Your task to perform on an android device: toggle priority inbox in the gmail app Image 0: 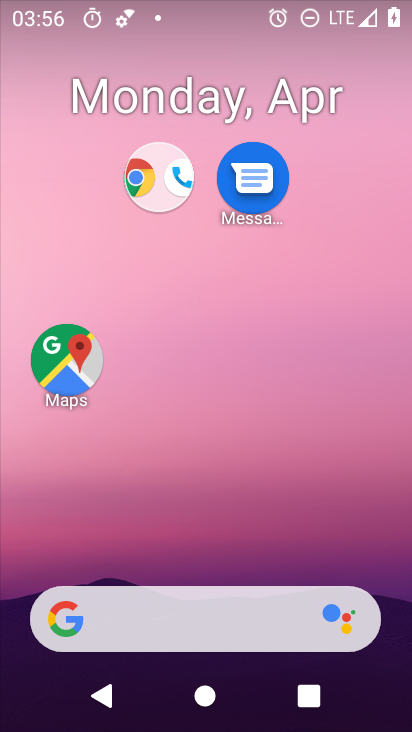
Step 0: drag from (301, 534) to (314, 3)
Your task to perform on an android device: toggle priority inbox in the gmail app Image 1: 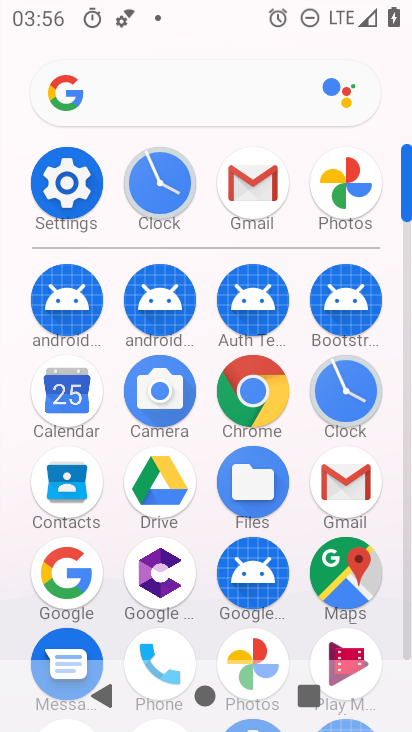
Step 1: click (354, 499)
Your task to perform on an android device: toggle priority inbox in the gmail app Image 2: 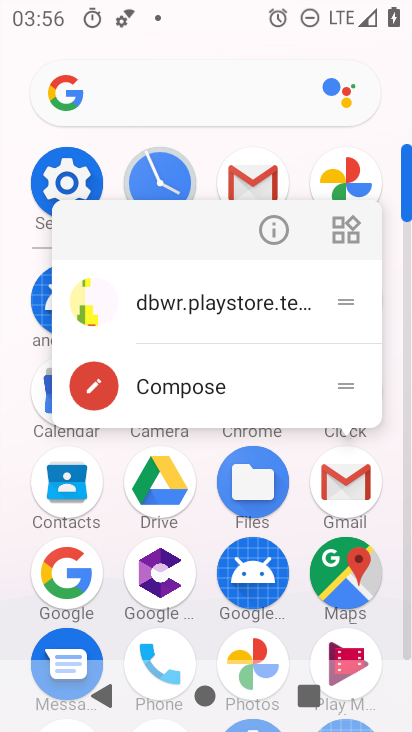
Step 2: click (333, 497)
Your task to perform on an android device: toggle priority inbox in the gmail app Image 3: 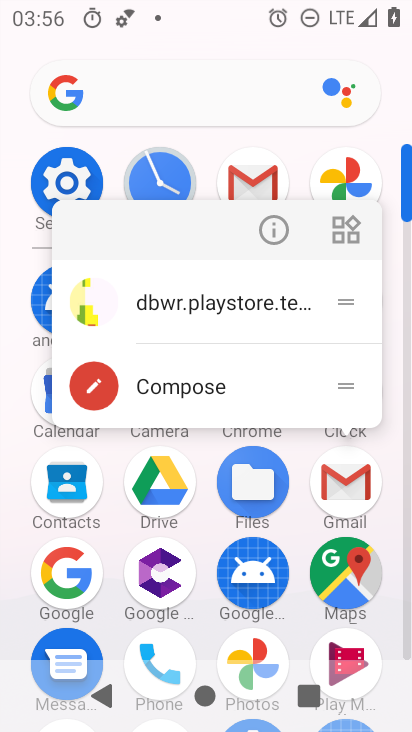
Step 3: click (349, 491)
Your task to perform on an android device: toggle priority inbox in the gmail app Image 4: 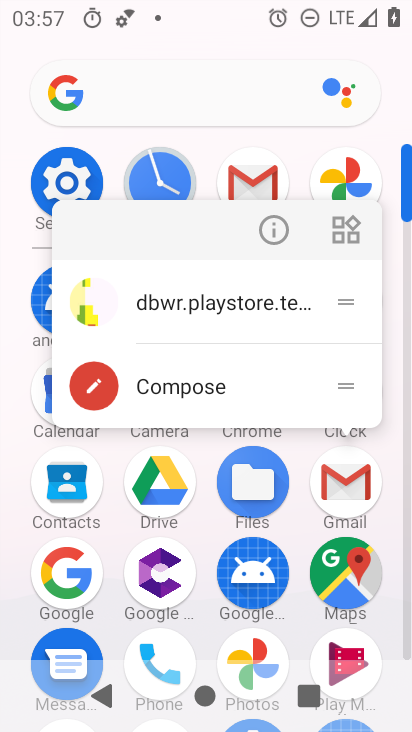
Step 4: click (349, 491)
Your task to perform on an android device: toggle priority inbox in the gmail app Image 5: 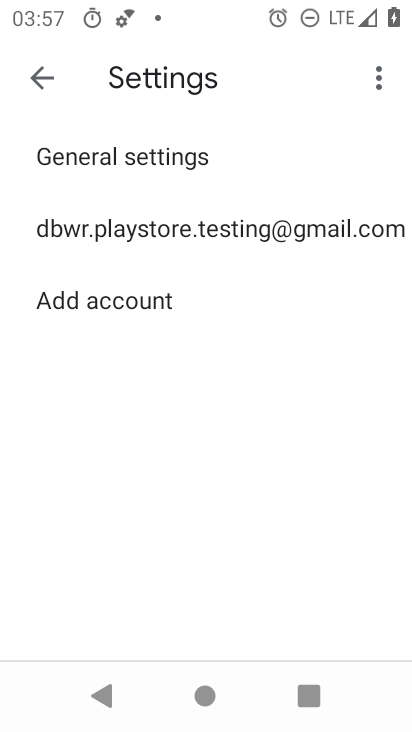
Step 5: click (253, 235)
Your task to perform on an android device: toggle priority inbox in the gmail app Image 6: 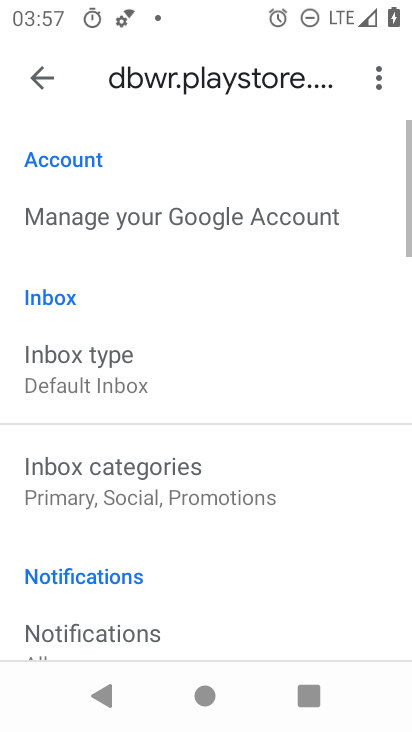
Step 6: drag from (300, 602) to (344, 147)
Your task to perform on an android device: toggle priority inbox in the gmail app Image 7: 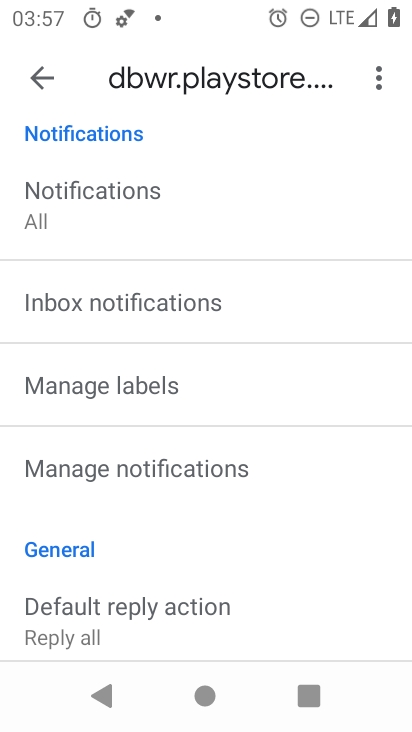
Step 7: drag from (253, 192) to (315, 697)
Your task to perform on an android device: toggle priority inbox in the gmail app Image 8: 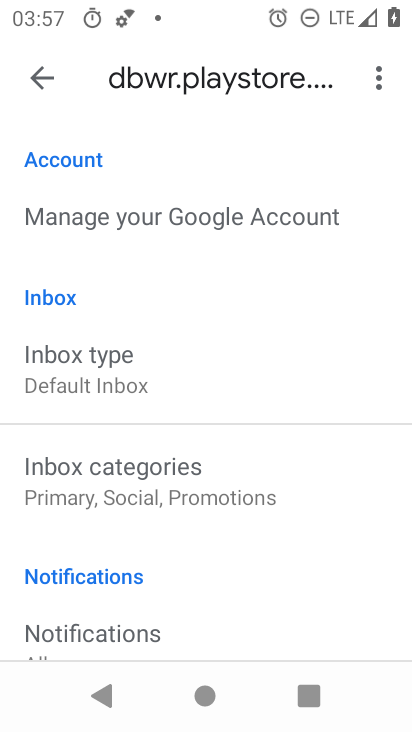
Step 8: click (199, 417)
Your task to perform on an android device: toggle priority inbox in the gmail app Image 9: 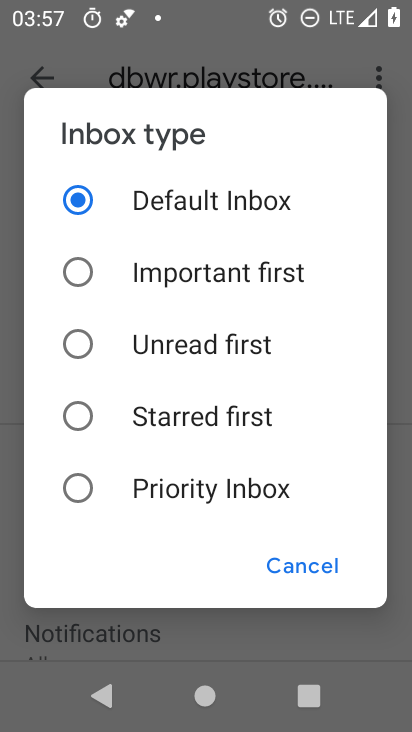
Step 9: click (234, 489)
Your task to perform on an android device: toggle priority inbox in the gmail app Image 10: 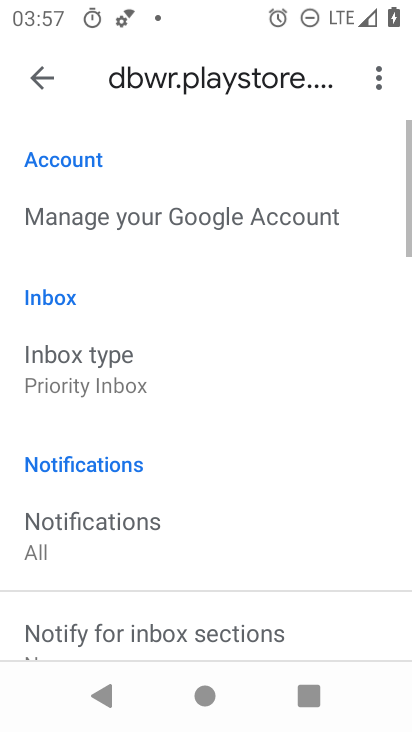
Step 10: task complete